Your task to perform on an android device: Go to notification settings Image 0: 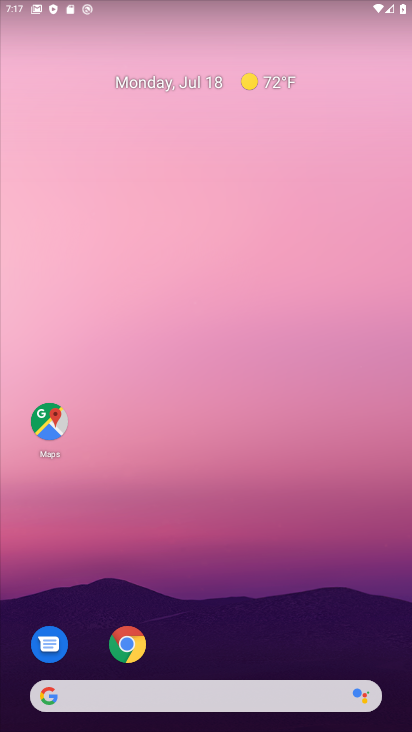
Step 0: drag from (386, 653) to (228, 11)
Your task to perform on an android device: Go to notification settings Image 1: 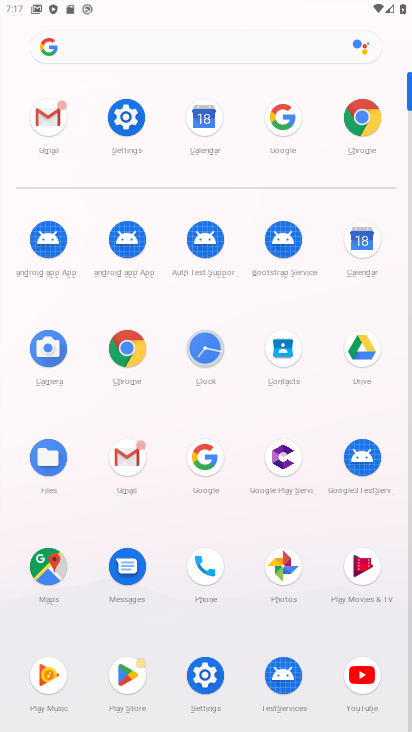
Step 1: click (211, 677)
Your task to perform on an android device: Go to notification settings Image 2: 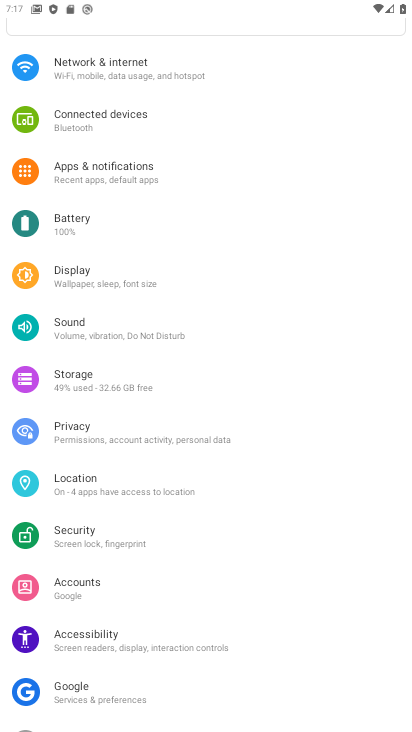
Step 2: click (106, 180)
Your task to perform on an android device: Go to notification settings Image 3: 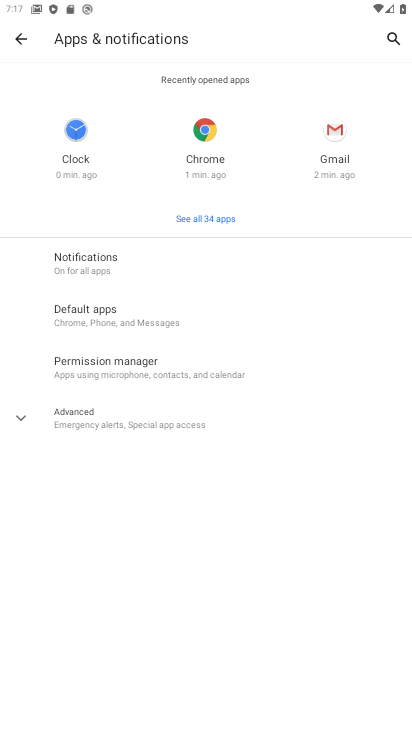
Step 3: click (70, 263)
Your task to perform on an android device: Go to notification settings Image 4: 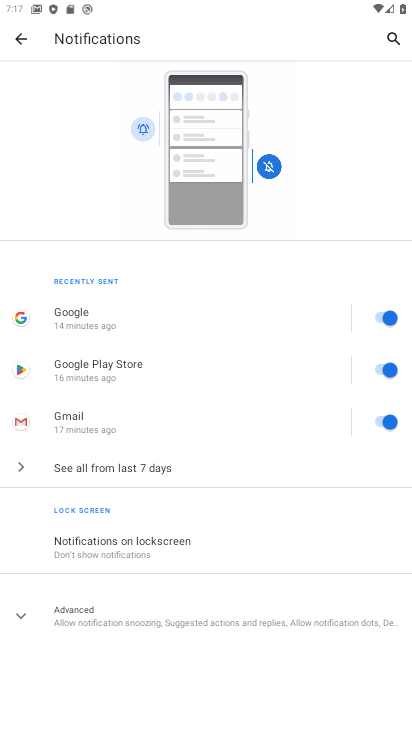
Step 4: task complete